Your task to perform on an android device: What's the weather today? Image 0: 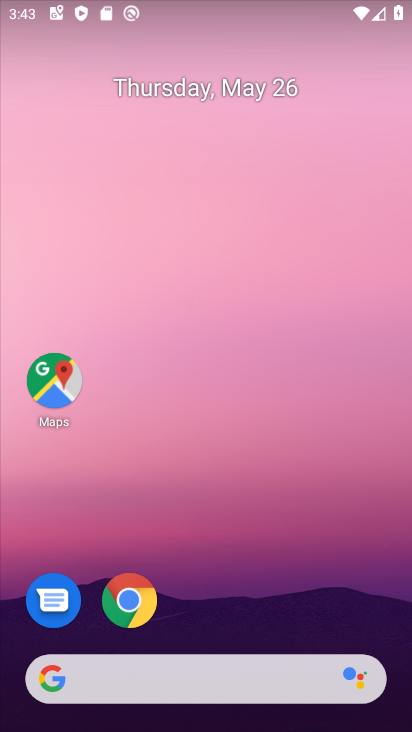
Step 0: click (191, 669)
Your task to perform on an android device: What's the weather today? Image 1: 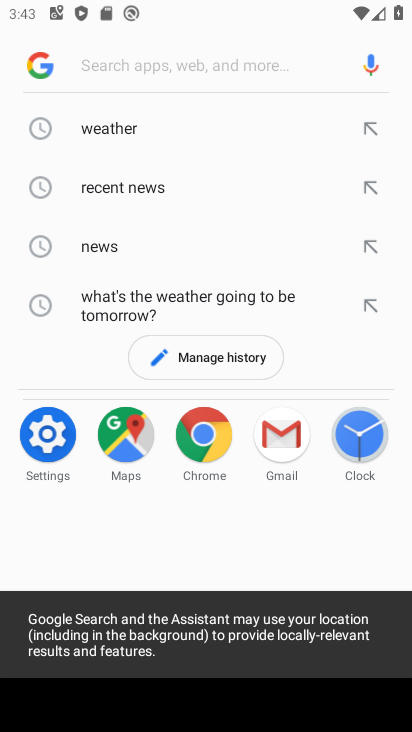
Step 1: click (108, 132)
Your task to perform on an android device: What's the weather today? Image 2: 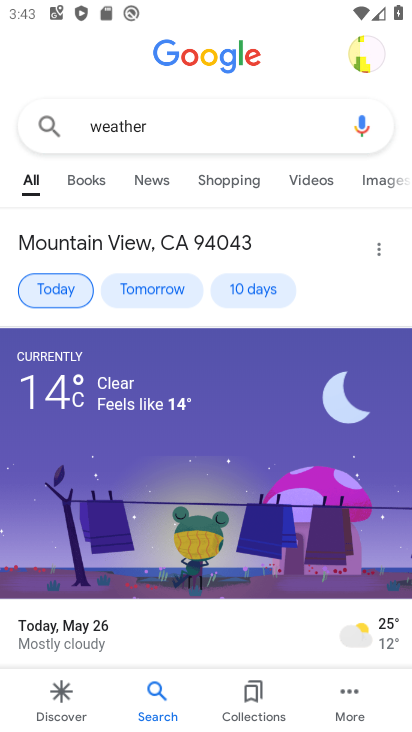
Step 2: task complete